Your task to perform on an android device: turn off smart reply in the gmail app Image 0: 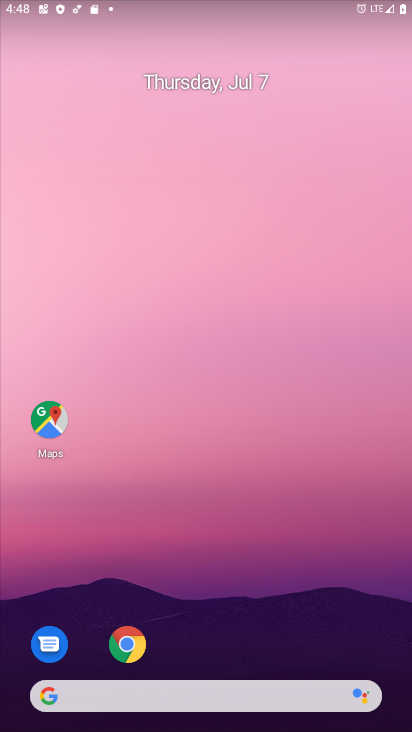
Step 0: drag from (263, 646) to (242, 194)
Your task to perform on an android device: turn off smart reply in the gmail app Image 1: 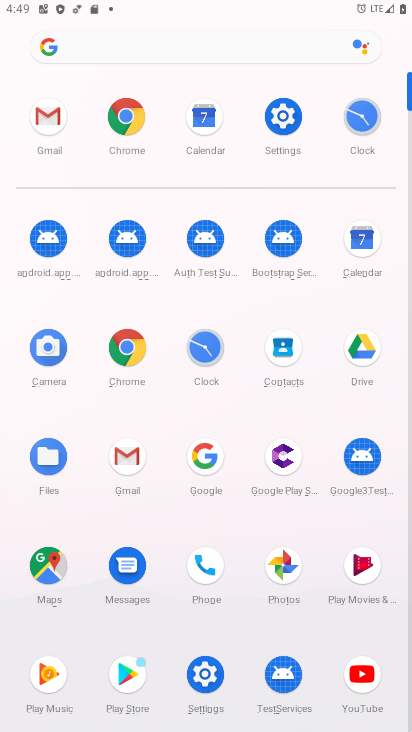
Step 1: click (125, 450)
Your task to perform on an android device: turn off smart reply in the gmail app Image 2: 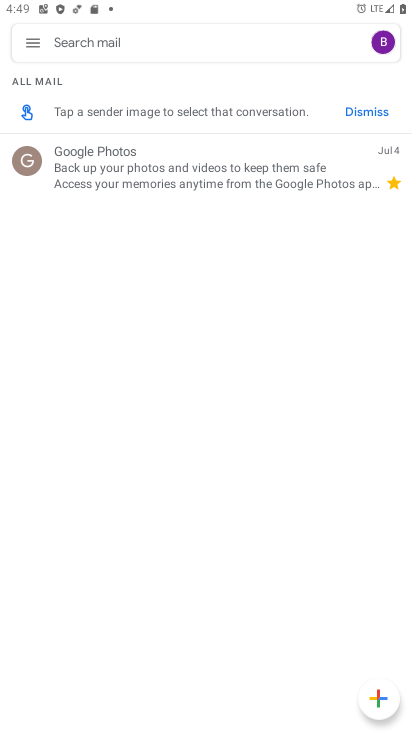
Step 2: click (30, 44)
Your task to perform on an android device: turn off smart reply in the gmail app Image 3: 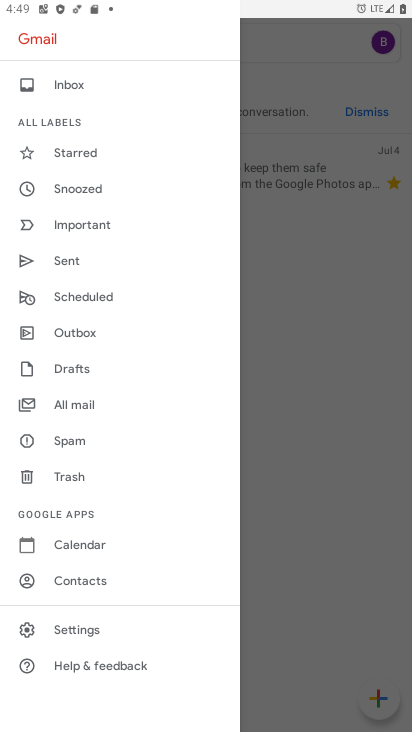
Step 3: click (73, 630)
Your task to perform on an android device: turn off smart reply in the gmail app Image 4: 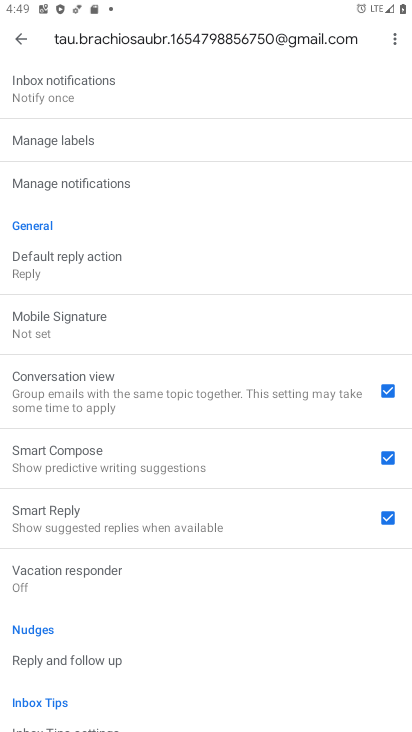
Step 4: click (386, 522)
Your task to perform on an android device: turn off smart reply in the gmail app Image 5: 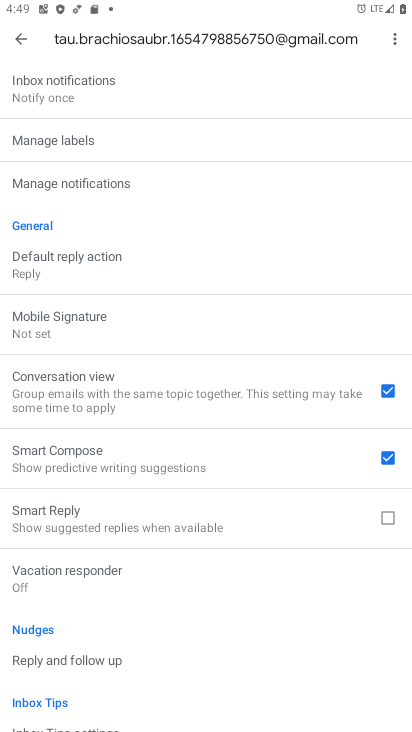
Step 5: task complete